Your task to perform on an android device: Open Reddit.com Image 0: 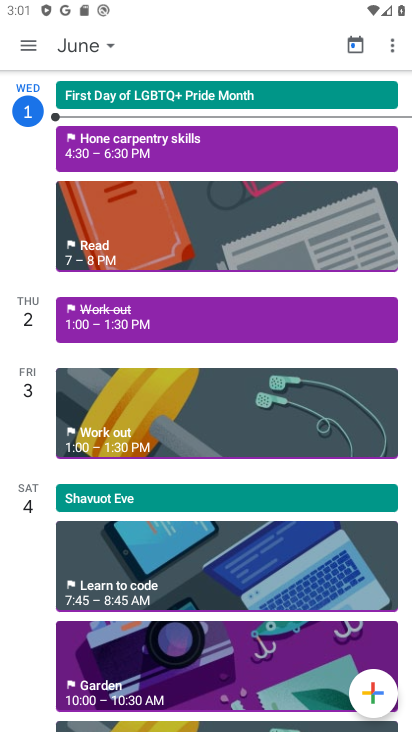
Step 0: press back button
Your task to perform on an android device: Open Reddit.com Image 1: 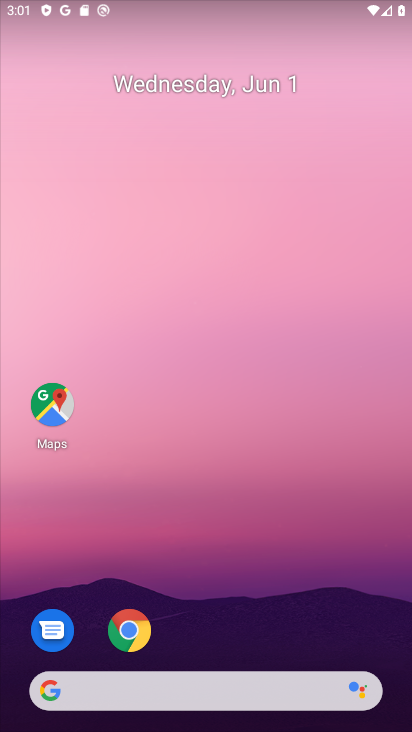
Step 1: click (141, 628)
Your task to perform on an android device: Open Reddit.com Image 2: 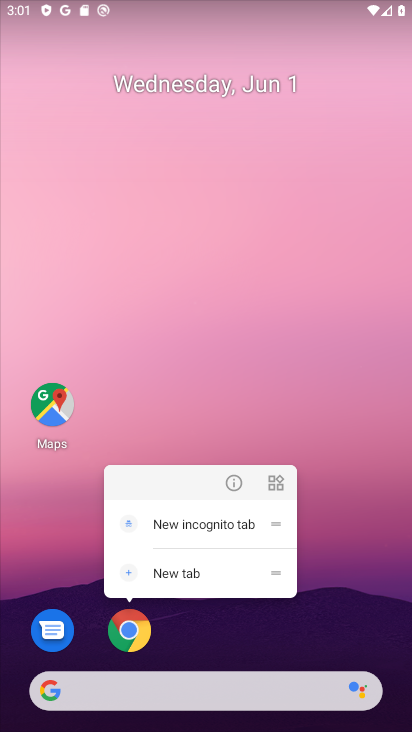
Step 2: click (126, 634)
Your task to perform on an android device: Open Reddit.com Image 3: 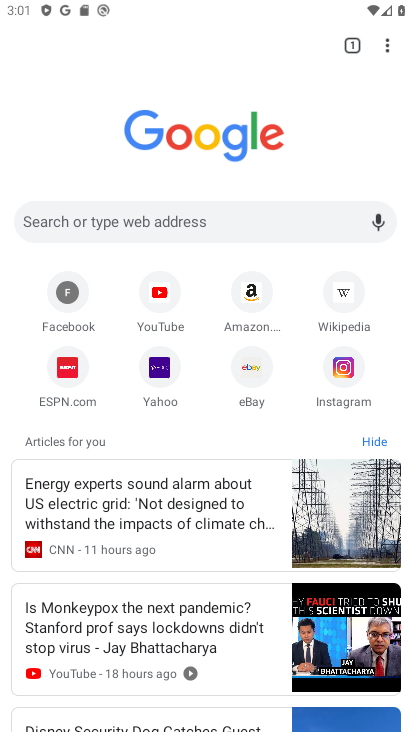
Step 3: click (166, 220)
Your task to perform on an android device: Open Reddit.com Image 4: 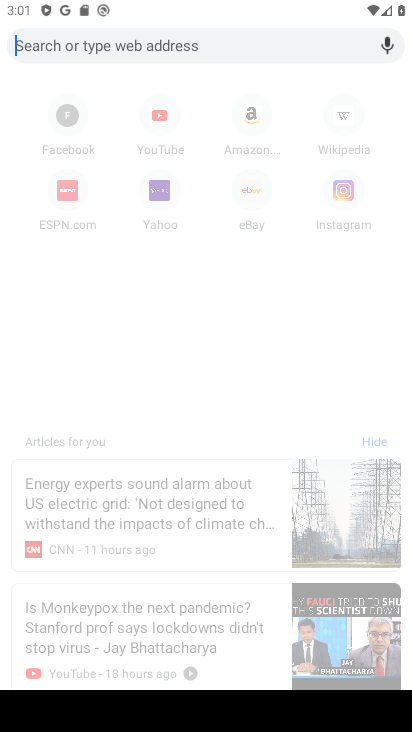
Step 4: type "reddit.com"
Your task to perform on an android device: Open Reddit.com Image 5: 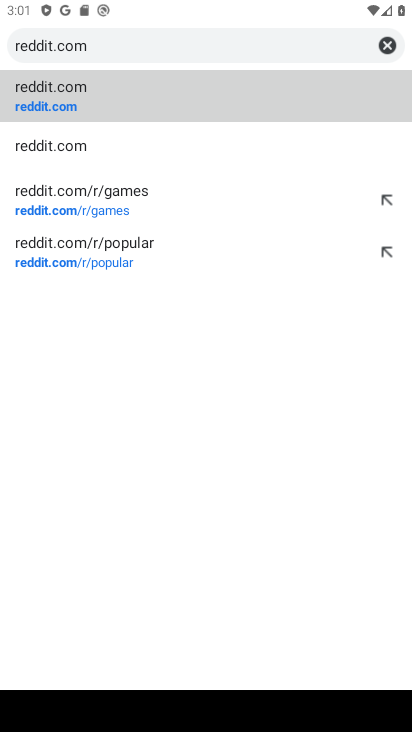
Step 5: click (131, 100)
Your task to perform on an android device: Open Reddit.com Image 6: 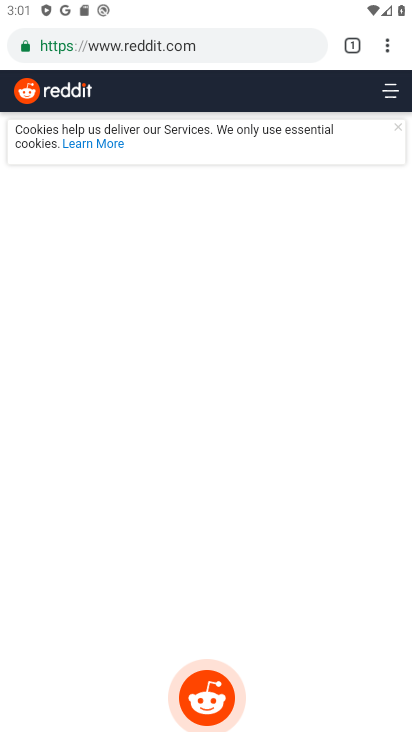
Step 6: task complete